Your task to perform on an android device: Go to ESPN.com Image 0: 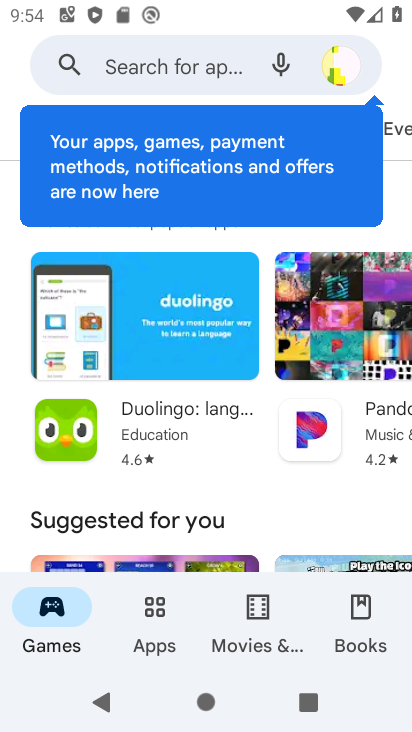
Step 0: press home button
Your task to perform on an android device: Go to ESPN.com Image 1: 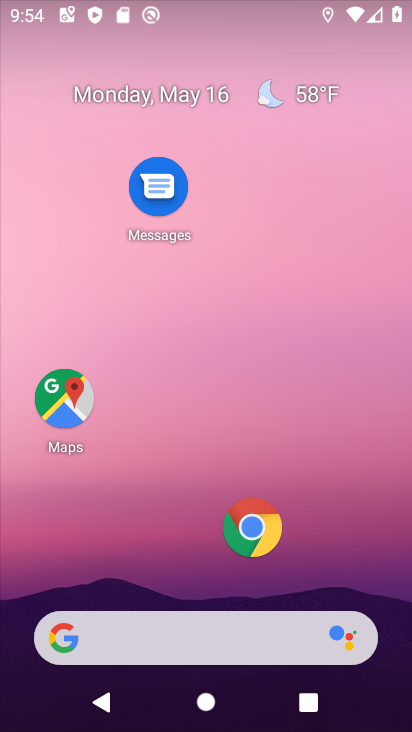
Step 1: drag from (174, 543) to (166, 63)
Your task to perform on an android device: Go to ESPN.com Image 2: 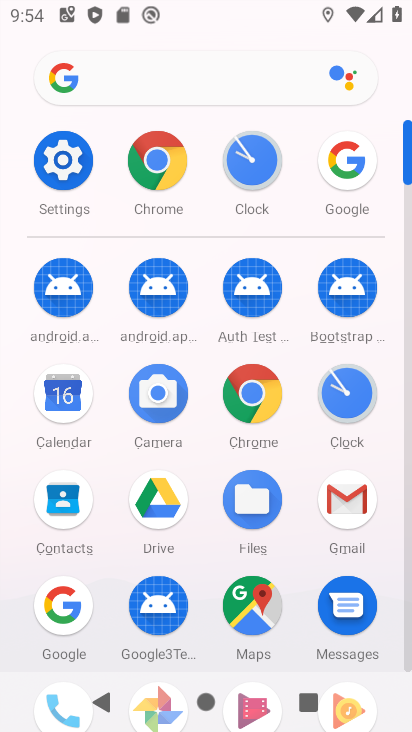
Step 2: click (352, 165)
Your task to perform on an android device: Go to ESPN.com Image 3: 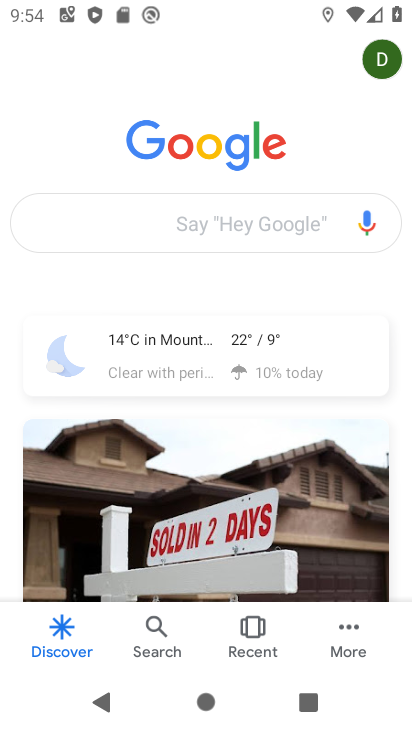
Step 3: click (191, 211)
Your task to perform on an android device: Go to ESPN.com Image 4: 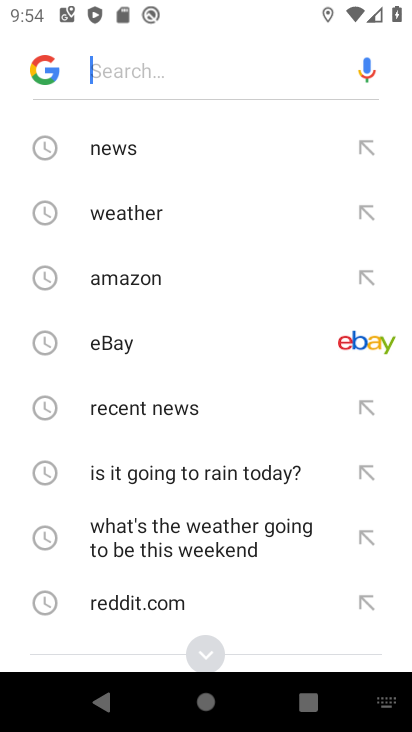
Step 4: drag from (228, 478) to (193, 184)
Your task to perform on an android device: Go to ESPN.com Image 5: 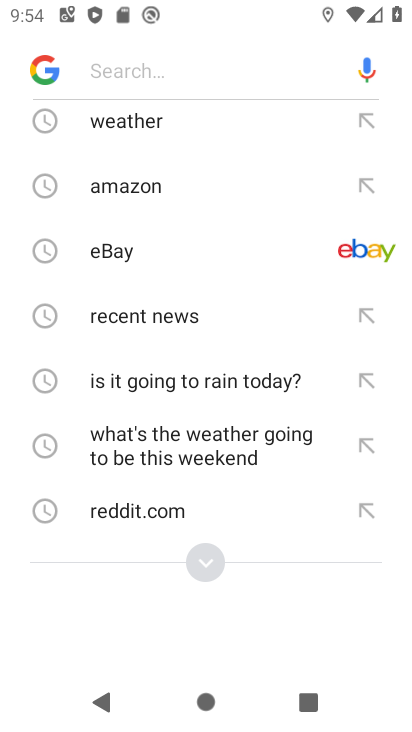
Step 5: click (202, 570)
Your task to perform on an android device: Go to ESPN.com Image 6: 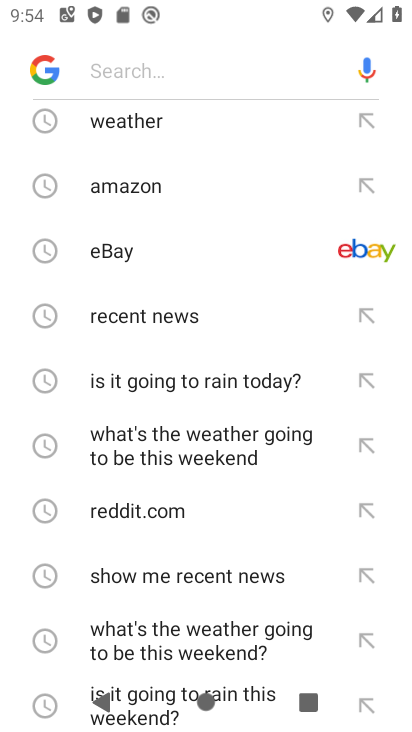
Step 6: drag from (202, 569) to (225, 160)
Your task to perform on an android device: Go to ESPN.com Image 7: 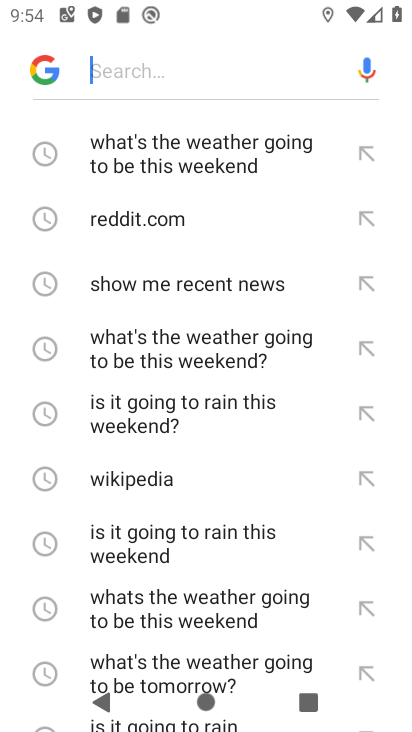
Step 7: drag from (239, 600) to (242, 216)
Your task to perform on an android device: Go to ESPN.com Image 8: 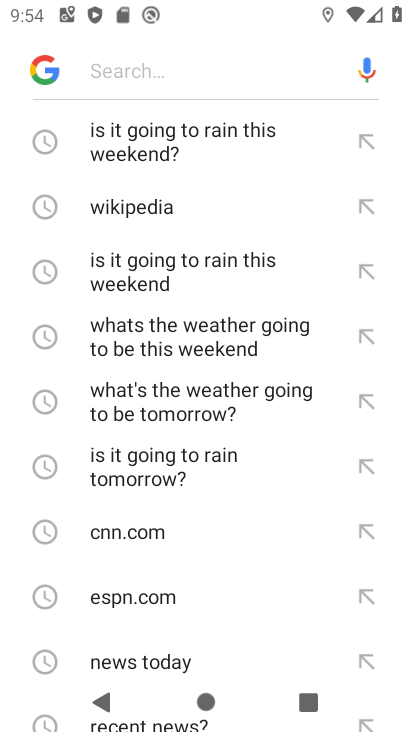
Step 8: click (155, 602)
Your task to perform on an android device: Go to ESPN.com Image 9: 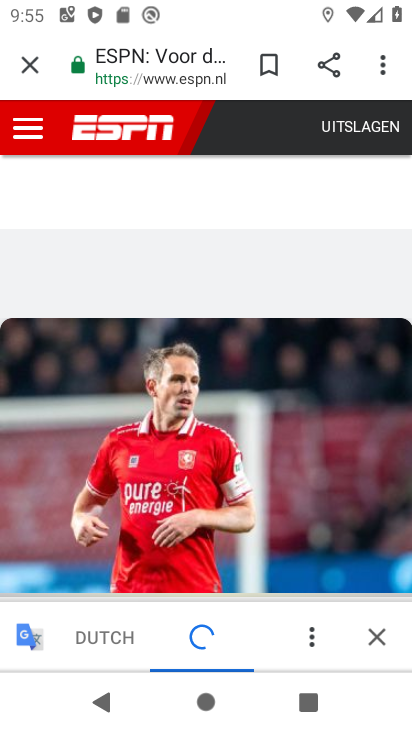
Step 9: task complete